Your task to perform on an android device: Where can I buy a nice beach cooler? Image 0: 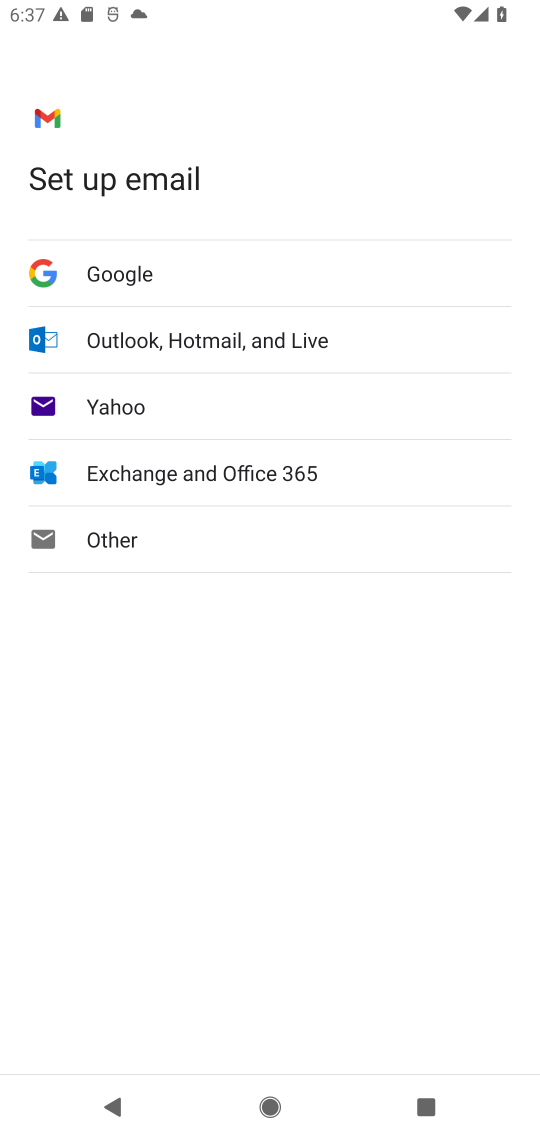
Step 0: press home button
Your task to perform on an android device: Where can I buy a nice beach cooler? Image 1: 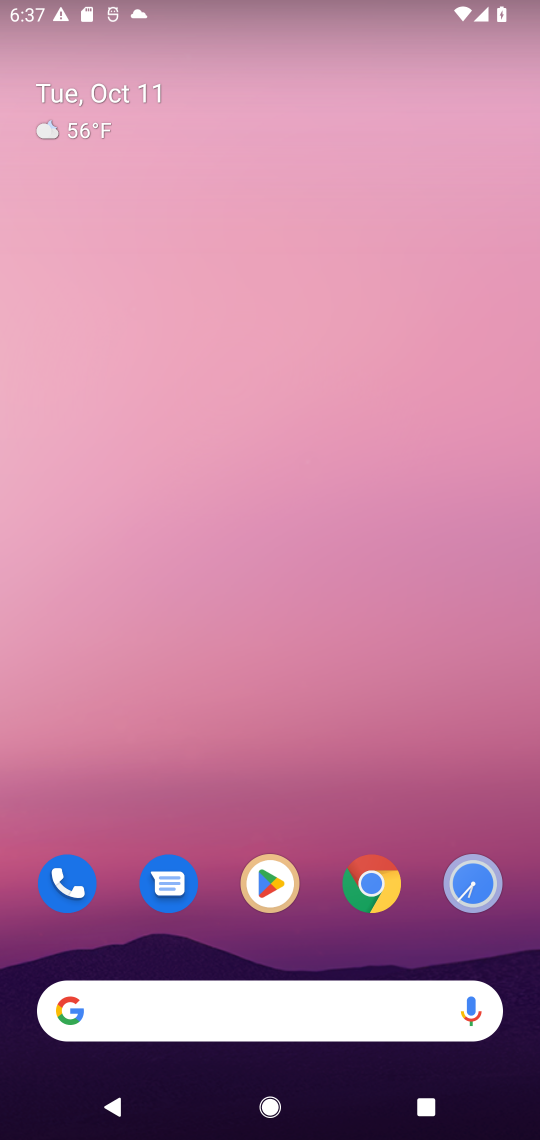
Step 1: drag from (336, 935) to (376, 1)
Your task to perform on an android device: Where can I buy a nice beach cooler? Image 2: 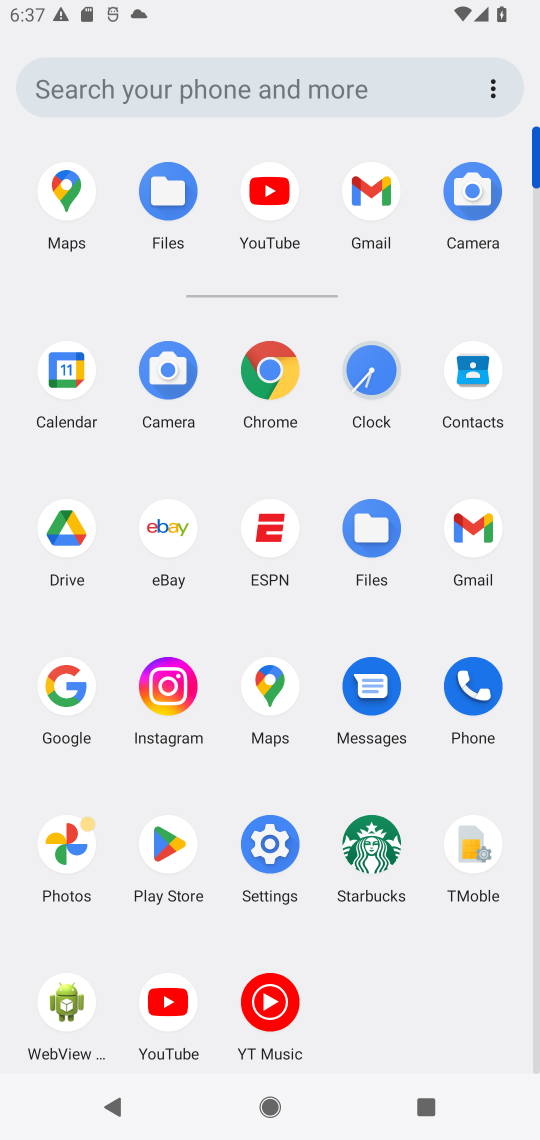
Step 2: click (272, 365)
Your task to perform on an android device: Where can I buy a nice beach cooler? Image 3: 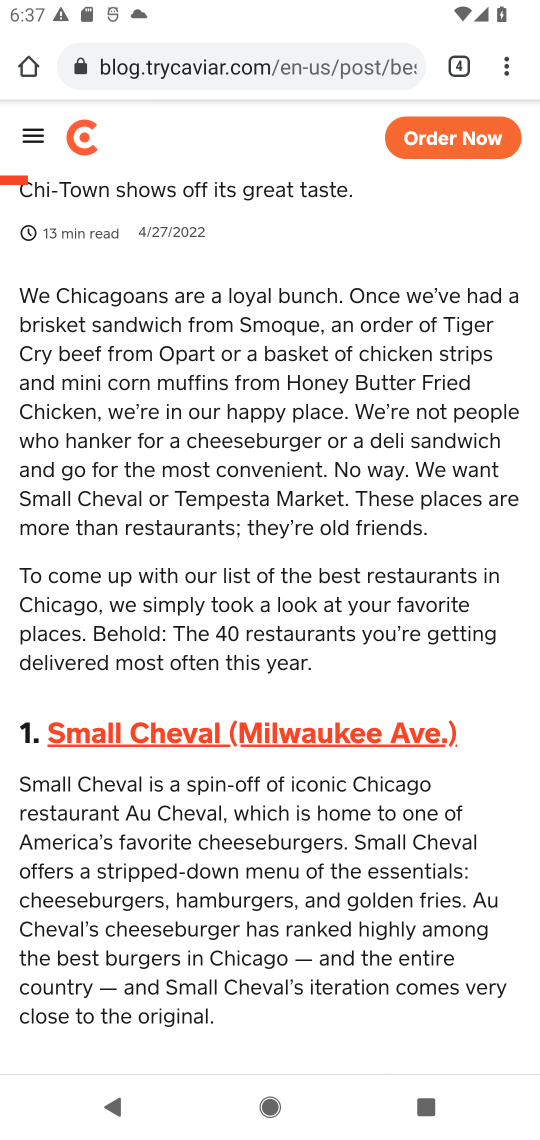
Step 3: click (281, 69)
Your task to perform on an android device: Where can I buy a nice beach cooler? Image 4: 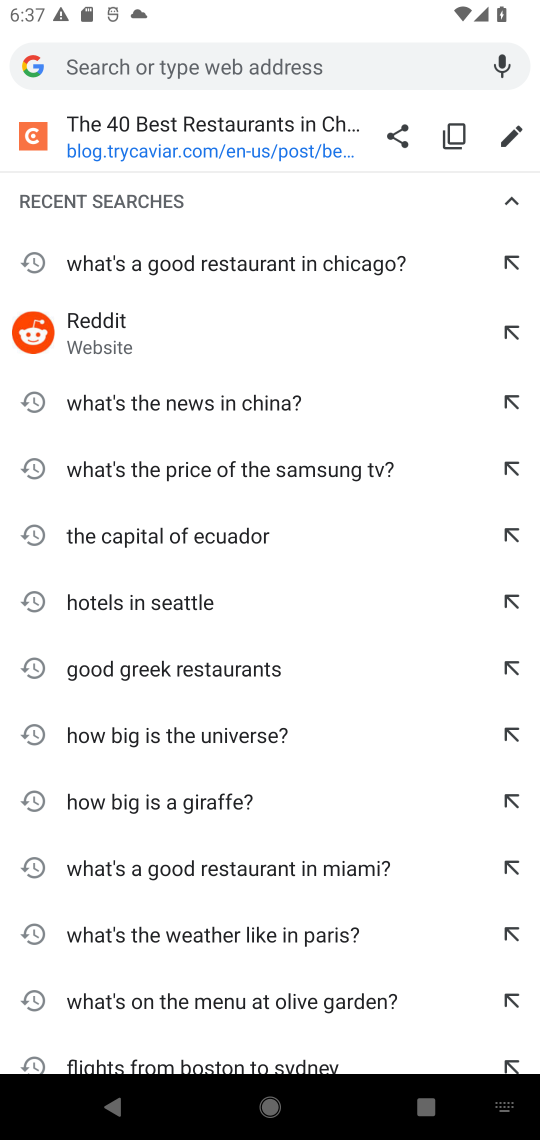
Step 4: type "Where can I buy a nice beach cooler?"
Your task to perform on an android device: Where can I buy a nice beach cooler? Image 5: 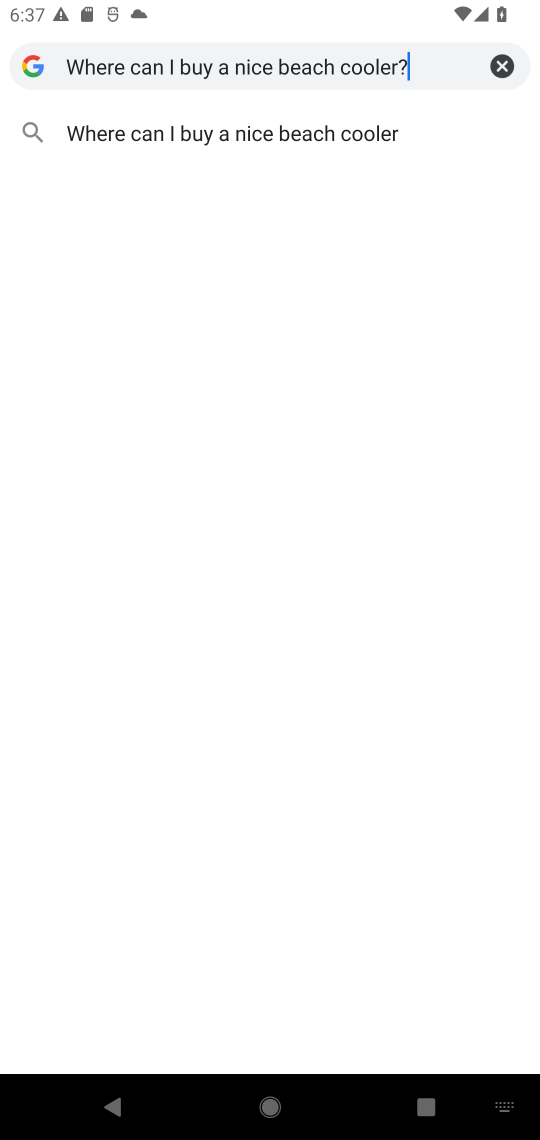
Step 5: press enter
Your task to perform on an android device: Where can I buy a nice beach cooler? Image 6: 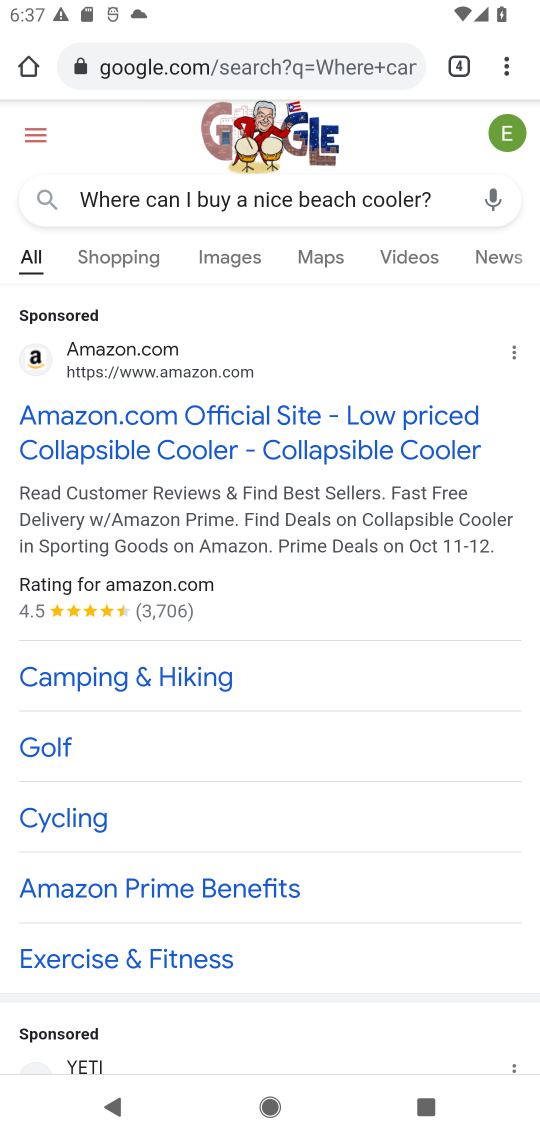
Step 6: task complete